Your task to perform on an android device: clear all cookies in the chrome app Image 0: 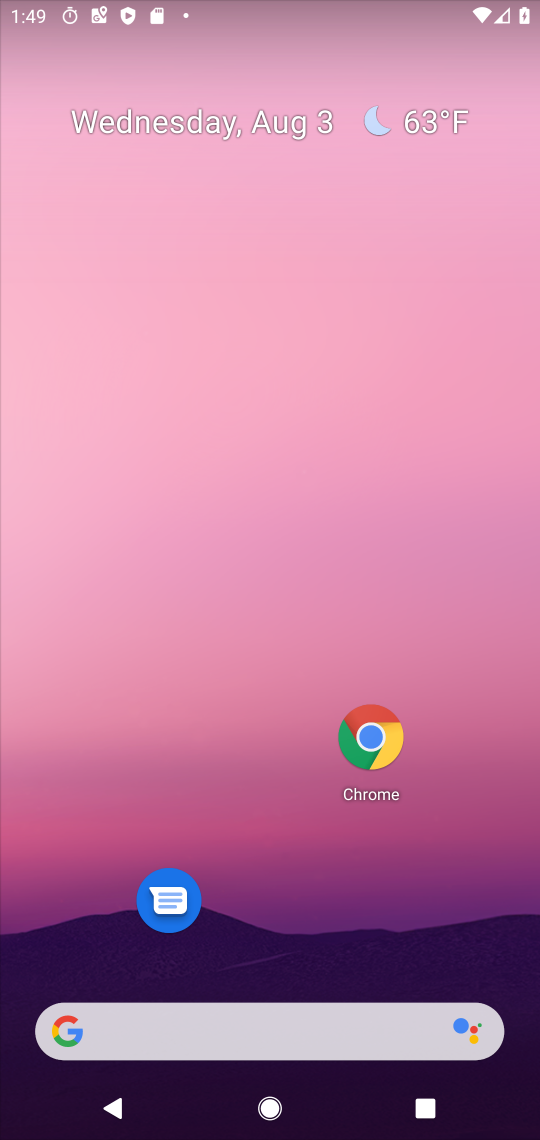
Step 0: drag from (301, 921) to (489, 67)
Your task to perform on an android device: clear all cookies in the chrome app Image 1: 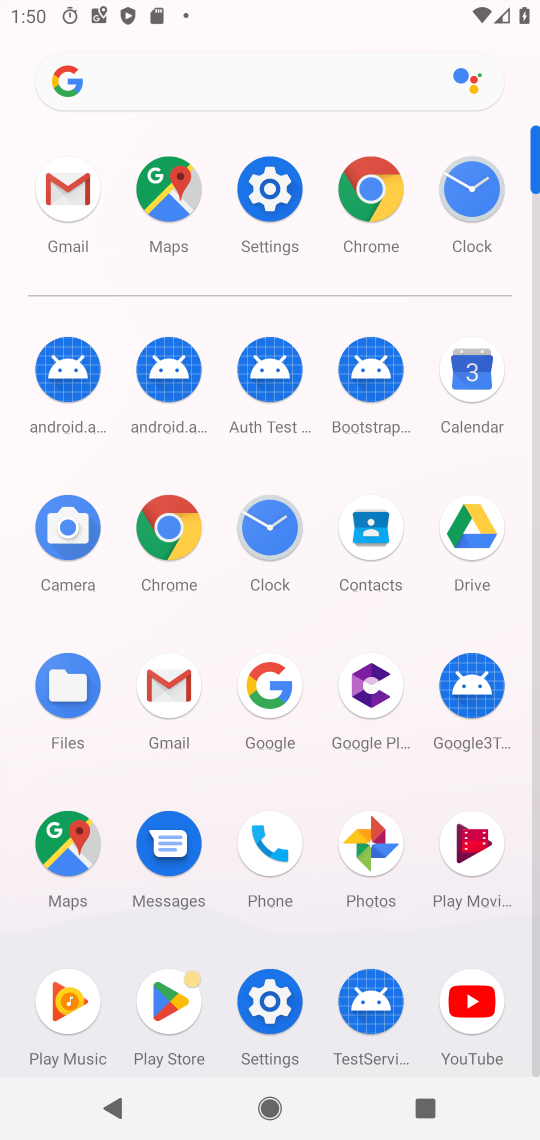
Step 1: click (163, 523)
Your task to perform on an android device: clear all cookies in the chrome app Image 2: 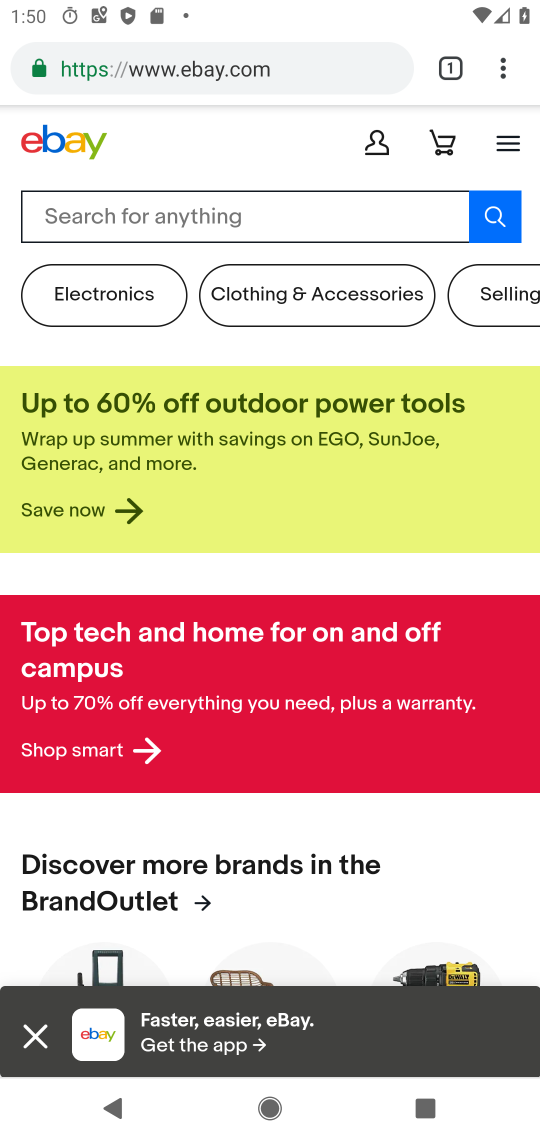
Step 2: task complete